Your task to perform on an android device: set the timer Image 0: 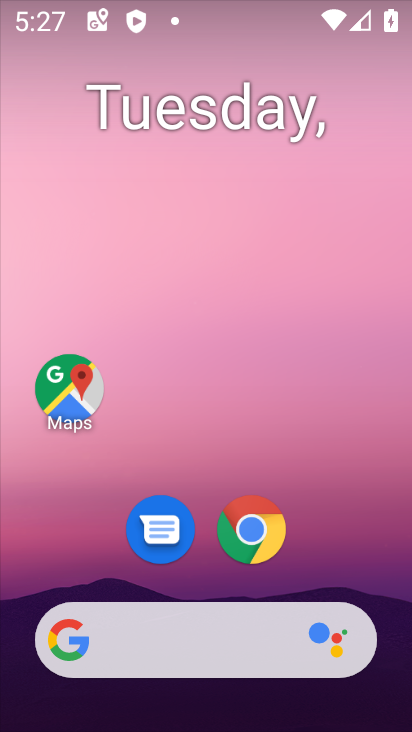
Step 0: drag from (378, 573) to (369, 156)
Your task to perform on an android device: set the timer Image 1: 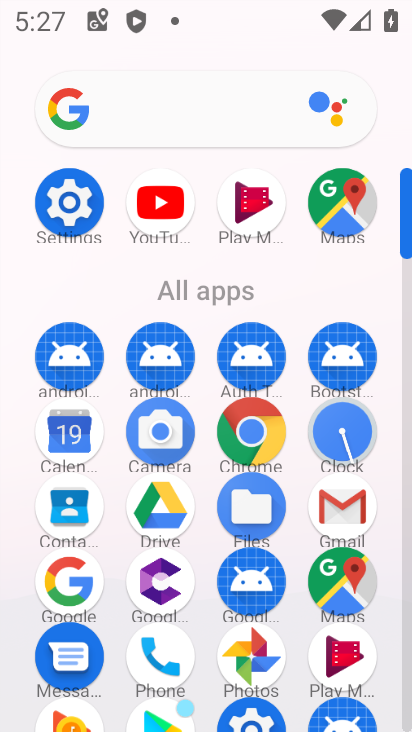
Step 1: click (336, 436)
Your task to perform on an android device: set the timer Image 2: 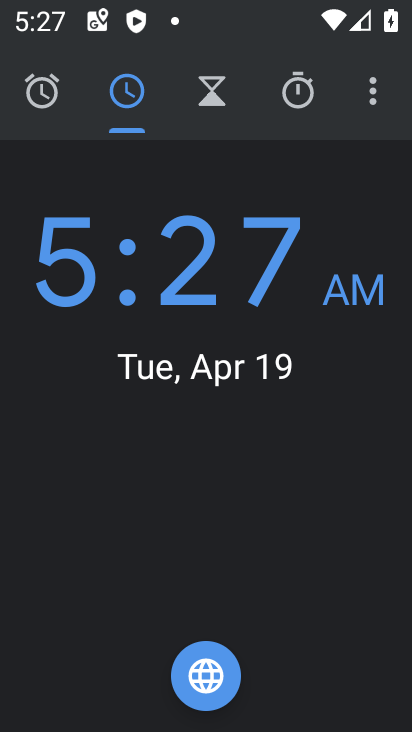
Step 2: click (302, 83)
Your task to perform on an android device: set the timer Image 3: 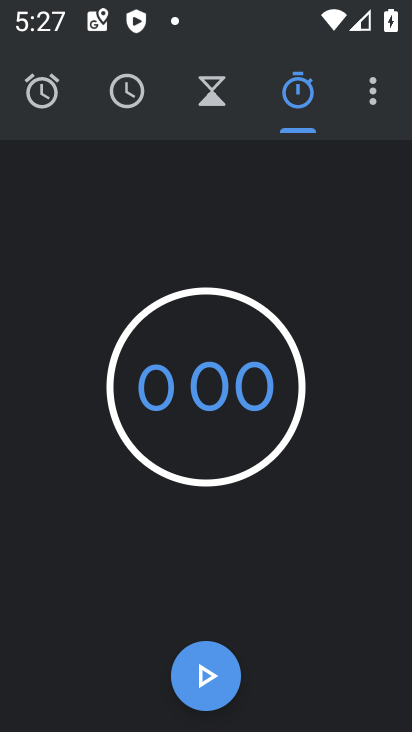
Step 3: click (203, 674)
Your task to perform on an android device: set the timer Image 4: 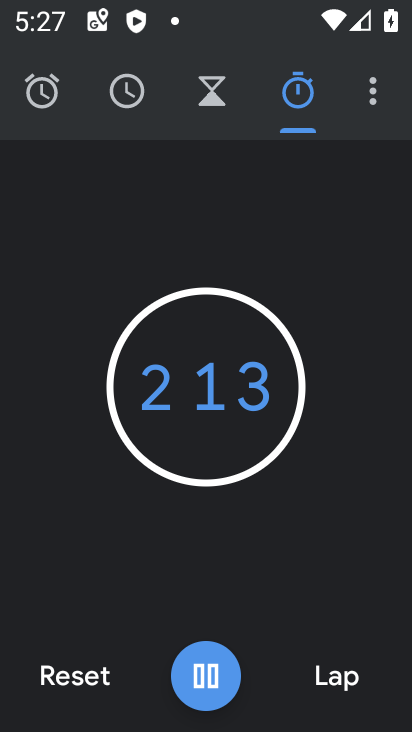
Step 4: task complete